Your task to perform on an android device: star an email in the gmail app Image 0: 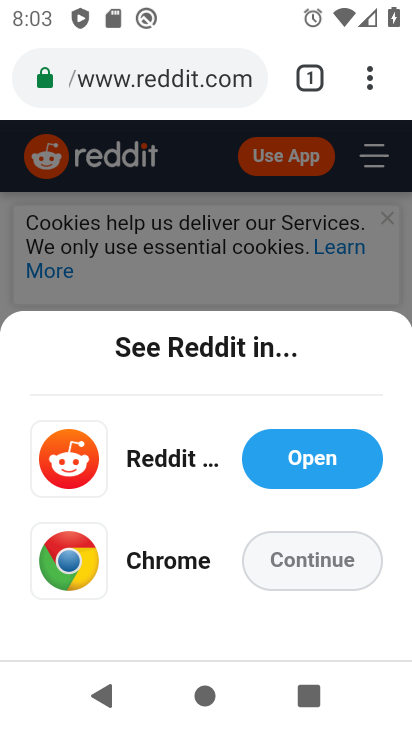
Step 0: press home button
Your task to perform on an android device: star an email in the gmail app Image 1: 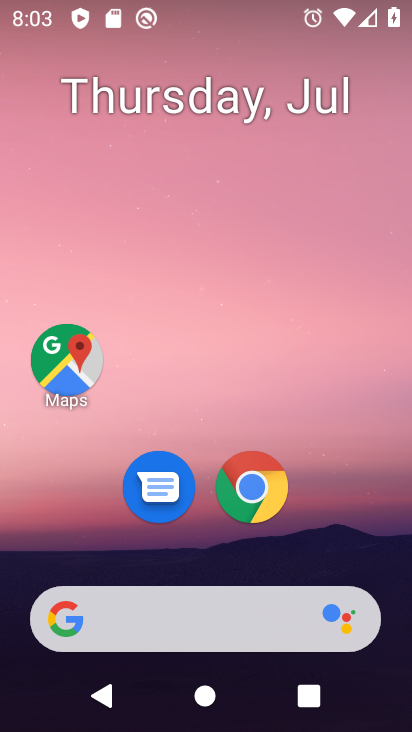
Step 1: drag from (260, 569) to (275, 181)
Your task to perform on an android device: star an email in the gmail app Image 2: 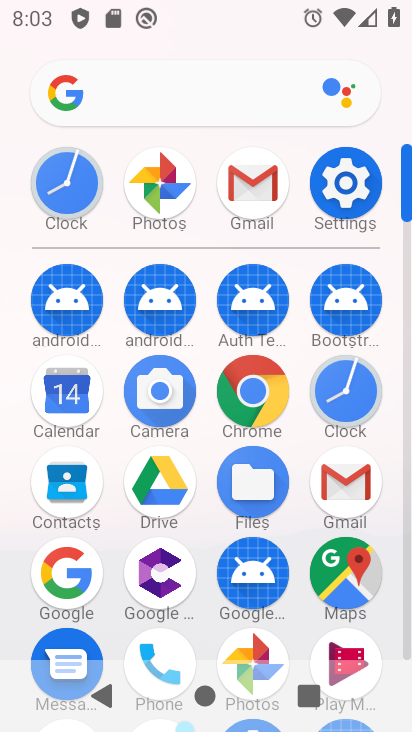
Step 2: click (348, 499)
Your task to perform on an android device: star an email in the gmail app Image 3: 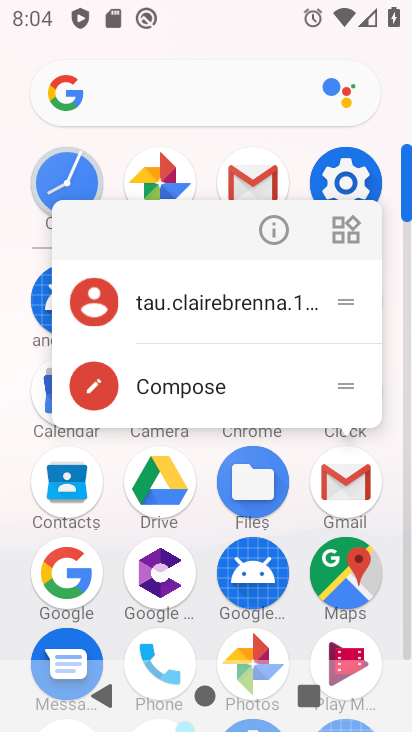
Step 3: click (343, 479)
Your task to perform on an android device: star an email in the gmail app Image 4: 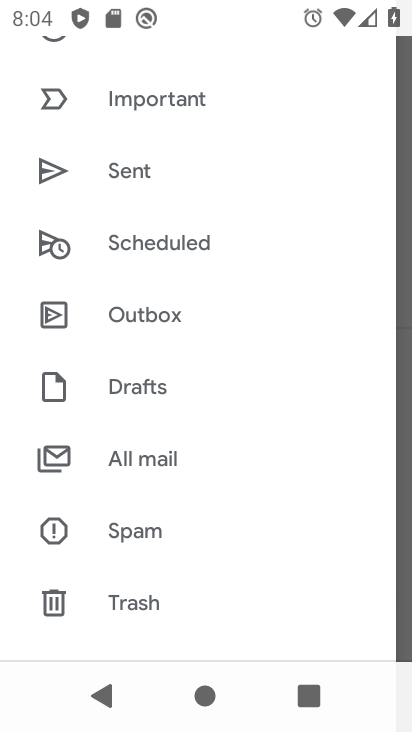
Step 4: click (160, 478)
Your task to perform on an android device: star an email in the gmail app Image 5: 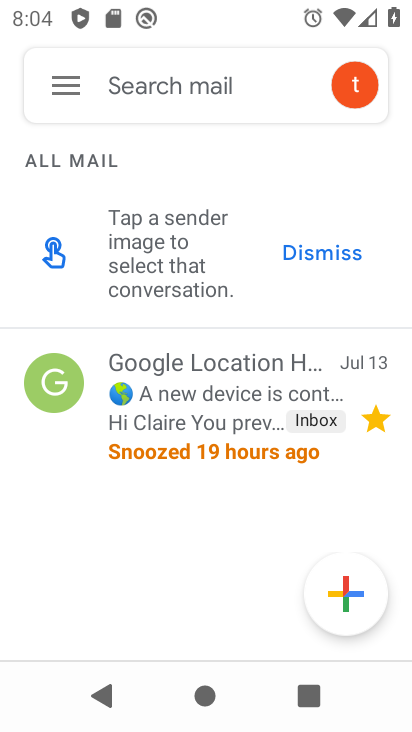
Step 5: task complete